Your task to perform on an android device: Add alienware aurora to the cart on walmart Image 0: 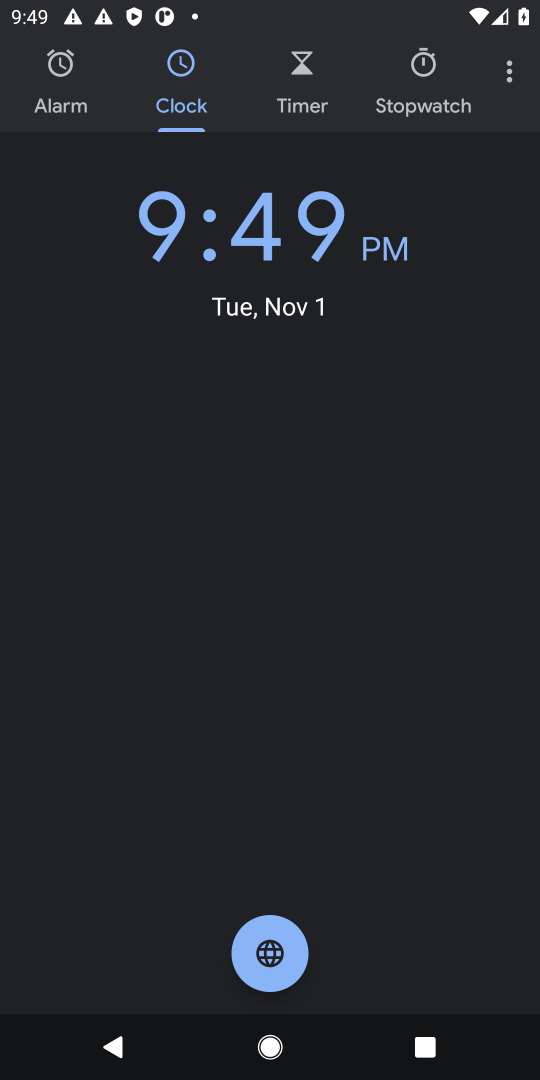
Step 0: press home button
Your task to perform on an android device: Add alienware aurora to the cart on walmart Image 1: 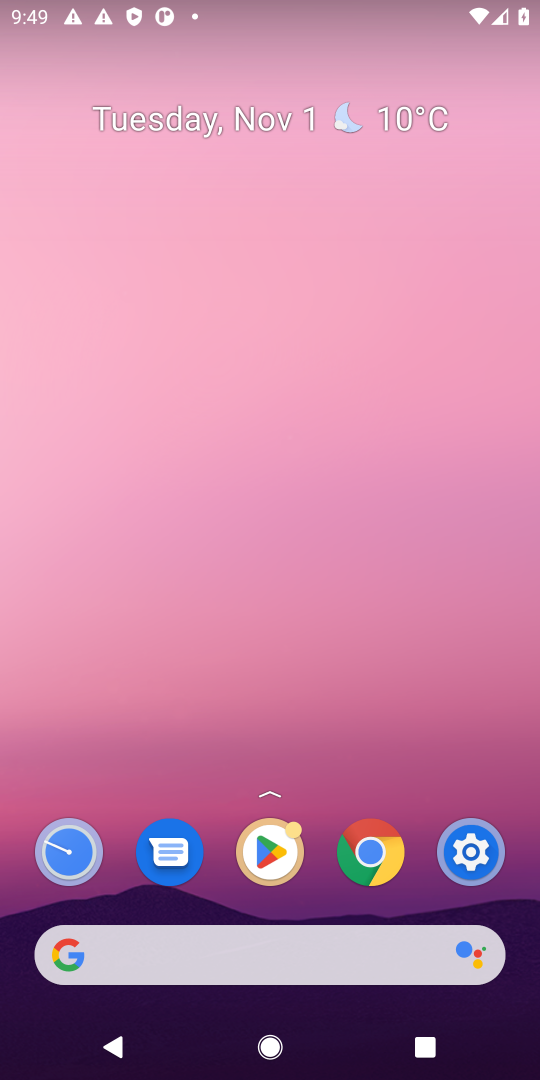
Step 1: click (60, 960)
Your task to perform on an android device: Add alienware aurora to the cart on walmart Image 2: 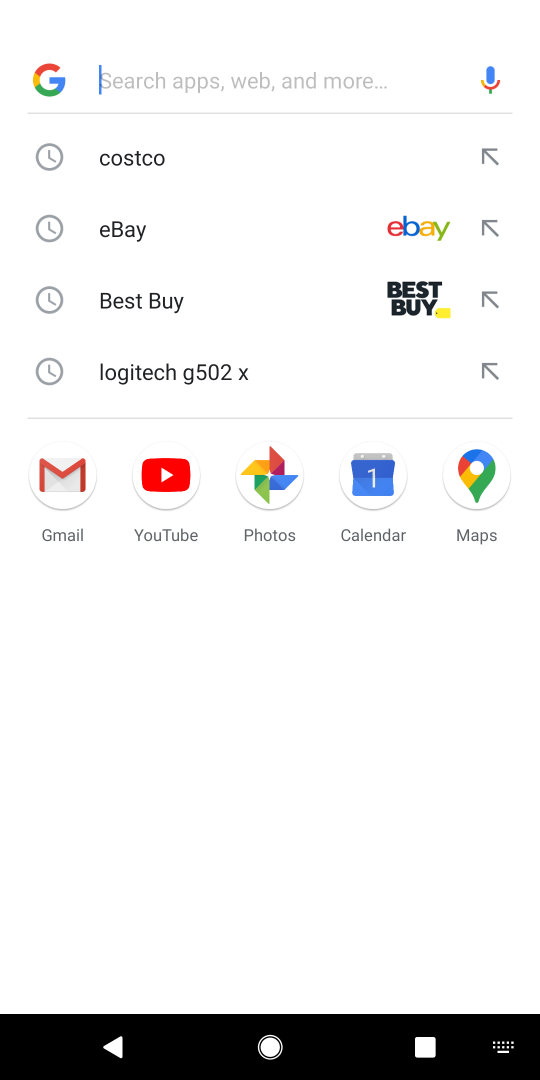
Step 2: type "walmart"
Your task to perform on an android device: Add alienware aurora to the cart on walmart Image 3: 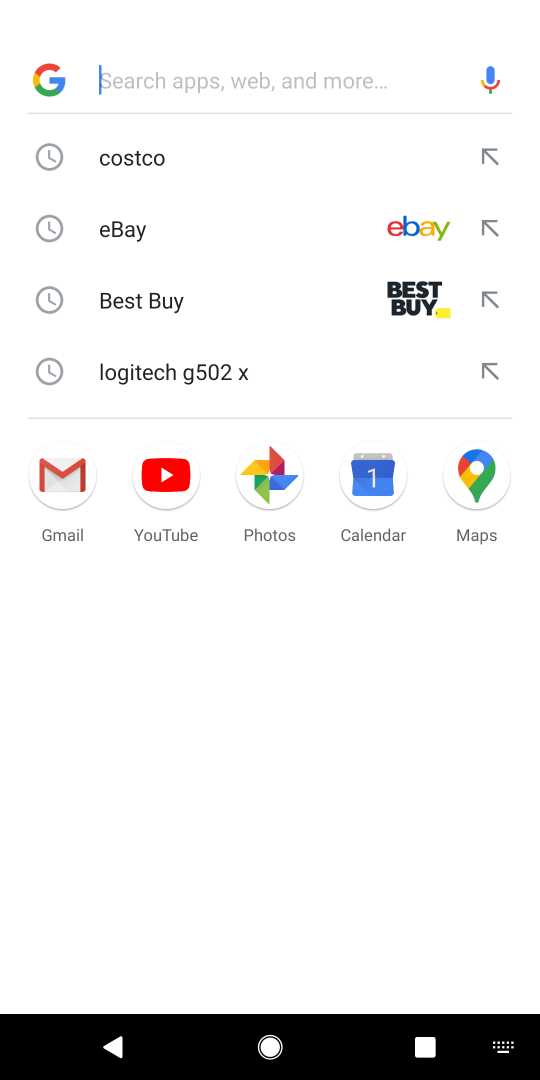
Step 3: click (144, 70)
Your task to perform on an android device: Add alienware aurora to the cart on walmart Image 4: 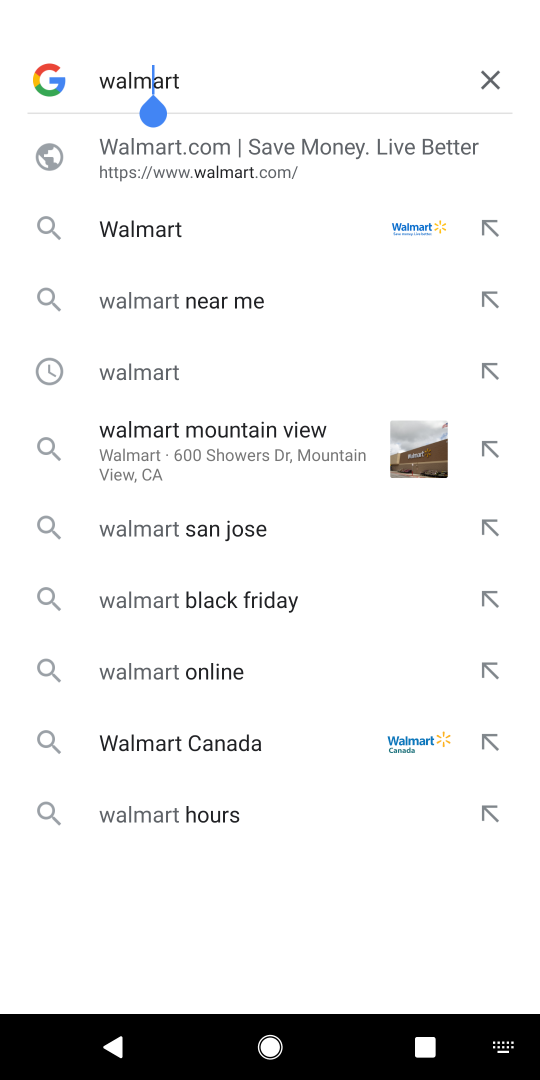
Step 4: press enter
Your task to perform on an android device: Add alienware aurora to the cart on walmart Image 5: 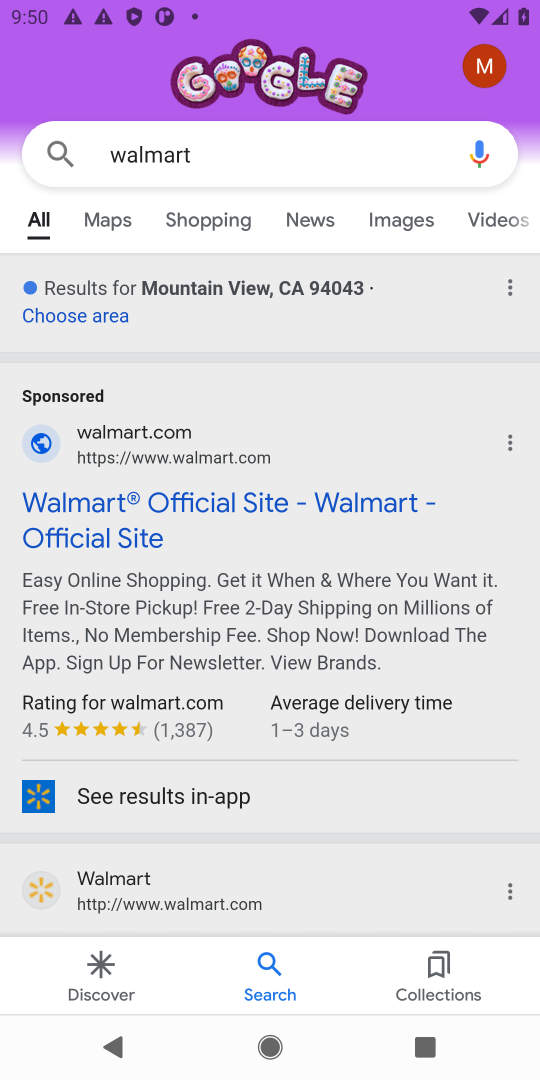
Step 5: click (100, 878)
Your task to perform on an android device: Add alienware aurora to the cart on walmart Image 6: 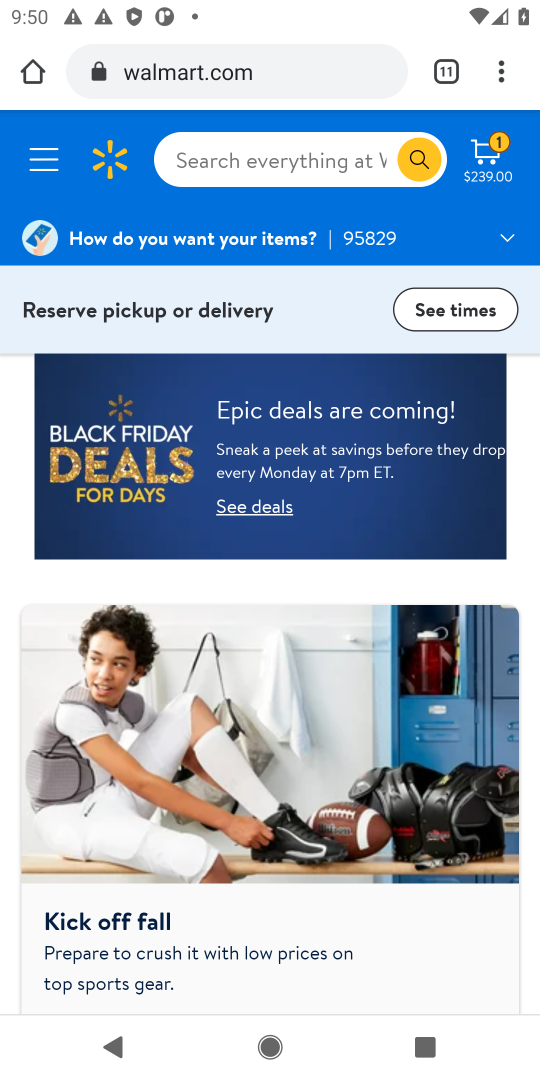
Step 6: click (233, 162)
Your task to perform on an android device: Add alienware aurora to the cart on walmart Image 7: 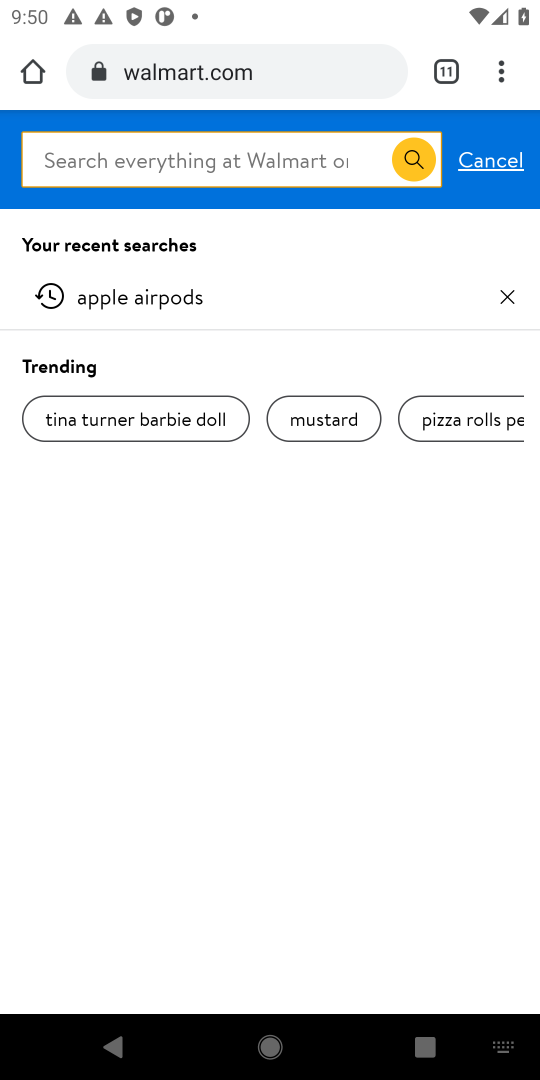
Step 7: type "alienware aurora"
Your task to perform on an android device: Add alienware aurora to the cart on walmart Image 8: 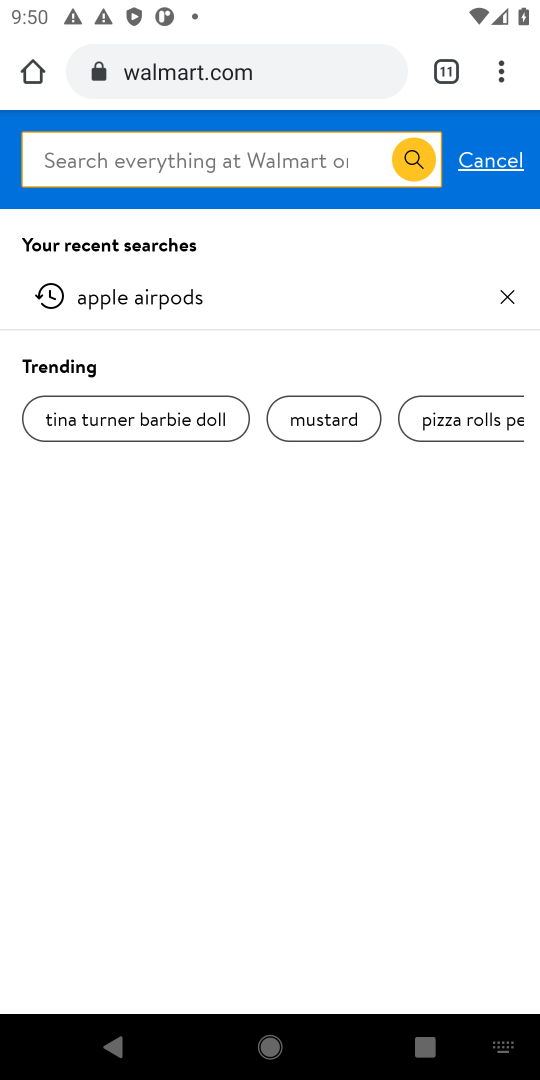
Step 8: click (157, 153)
Your task to perform on an android device: Add alienware aurora to the cart on walmart Image 9: 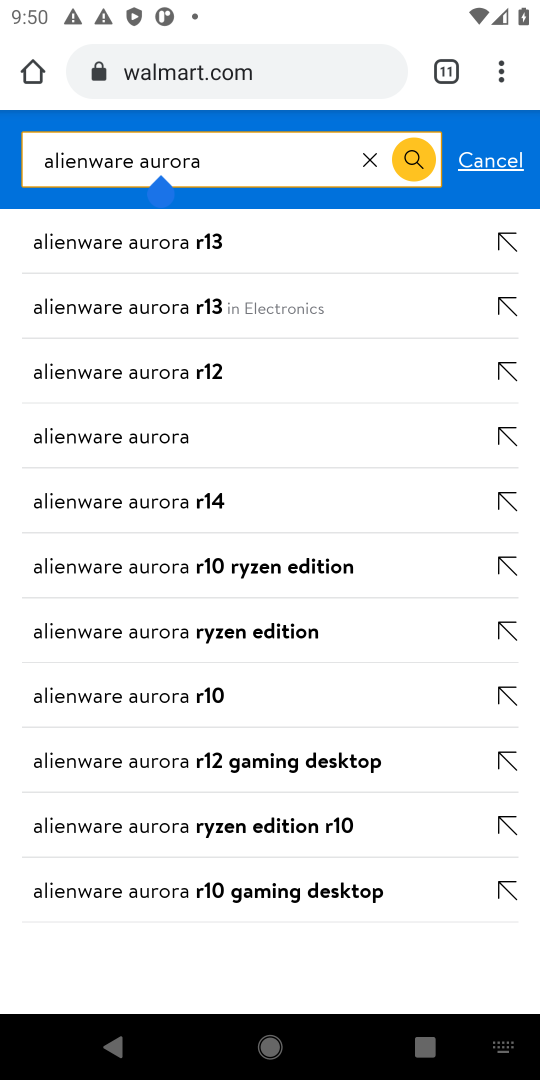
Step 9: press enter
Your task to perform on an android device: Add alienware aurora to the cart on walmart Image 10: 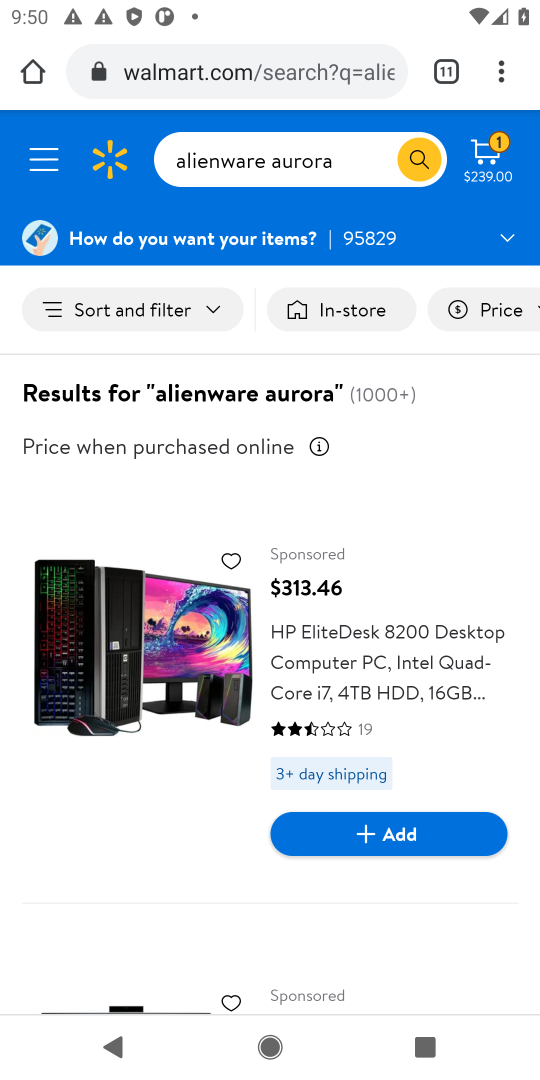
Step 10: drag from (489, 938) to (425, 328)
Your task to perform on an android device: Add alienware aurora to the cart on walmart Image 11: 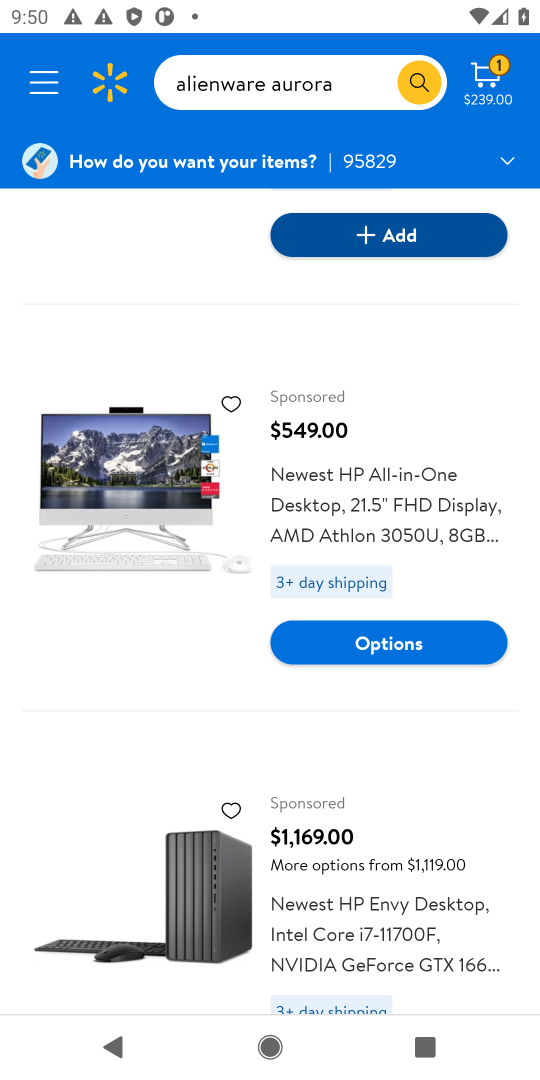
Step 11: drag from (481, 956) to (424, 196)
Your task to perform on an android device: Add alienware aurora to the cart on walmart Image 12: 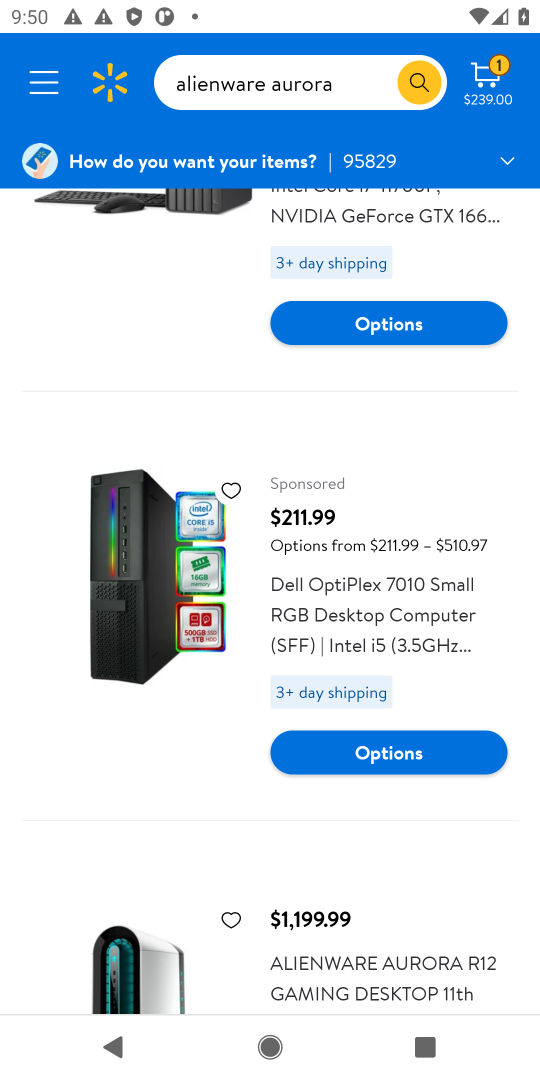
Step 12: drag from (478, 824) to (460, 534)
Your task to perform on an android device: Add alienware aurora to the cart on walmart Image 13: 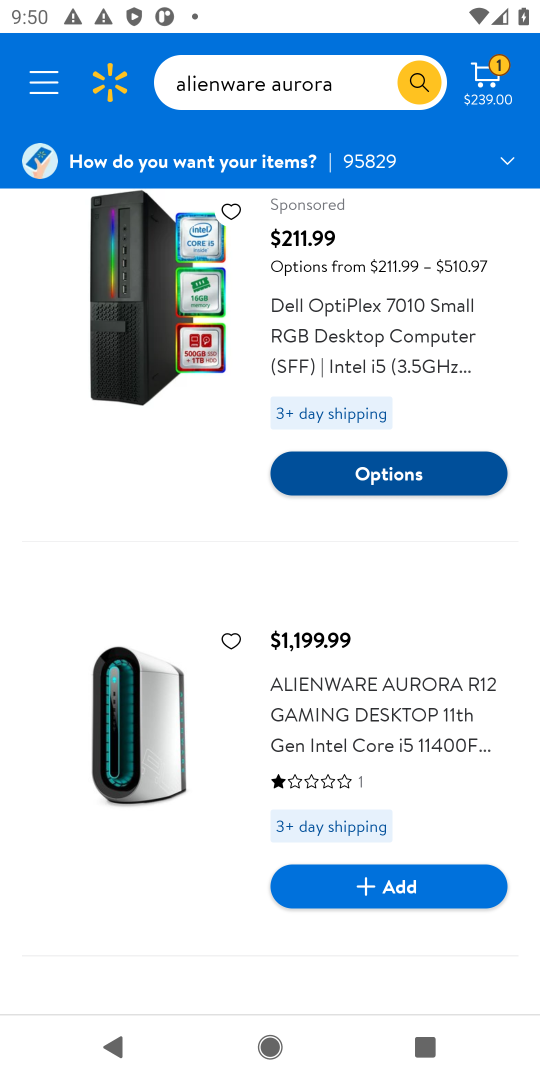
Step 13: click (366, 685)
Your task to perform on an android device: Add alienware aurora to the cart on walmart Image 14: 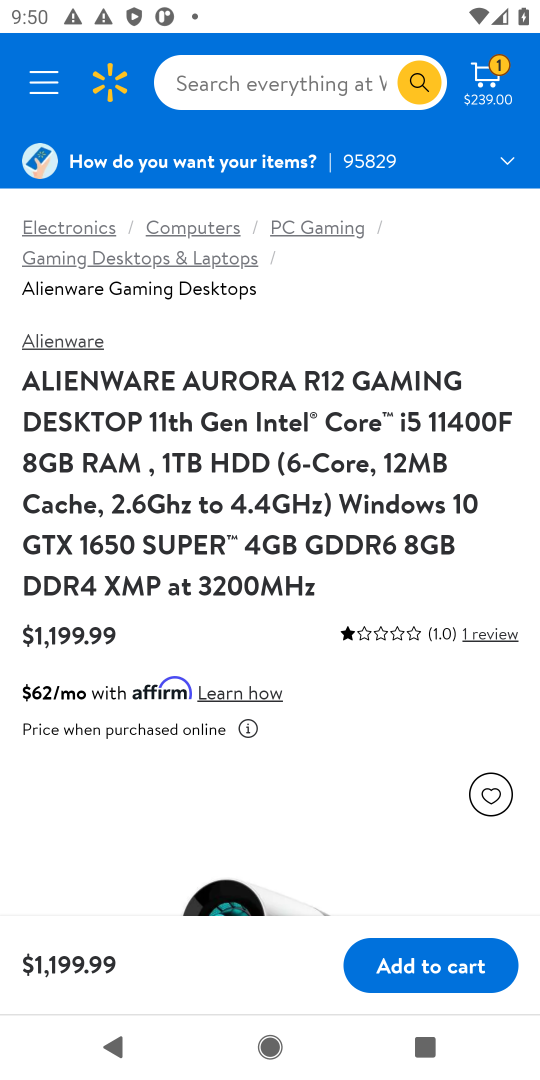
Step 14: click (418, 959)
Your task to perform on an android device: Add alienware aurora to the cart on walmart Image 15: 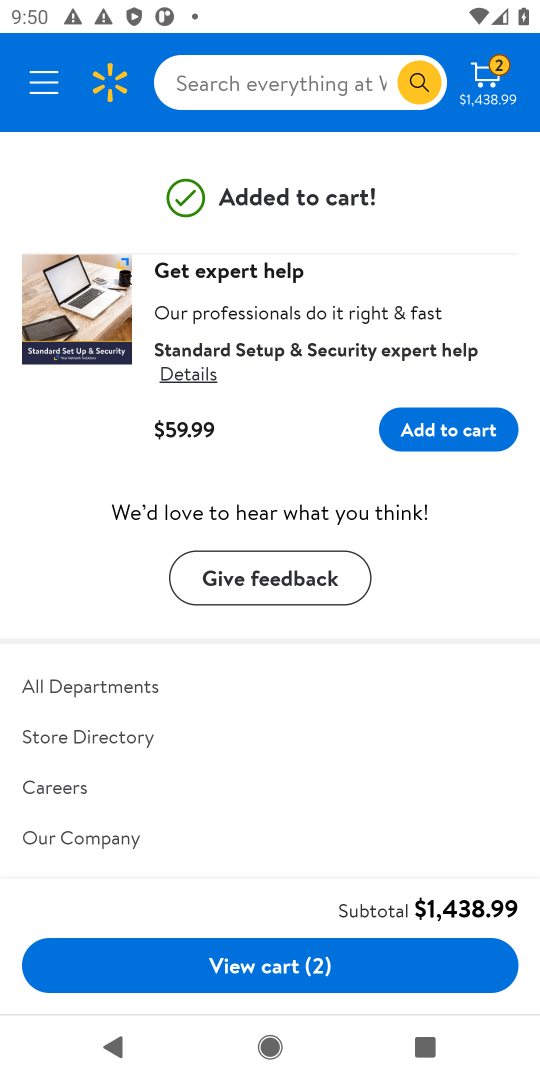
Step 15: task complete